Your task to perform on an android device: Go to calendar. Show me events next week Image 0: 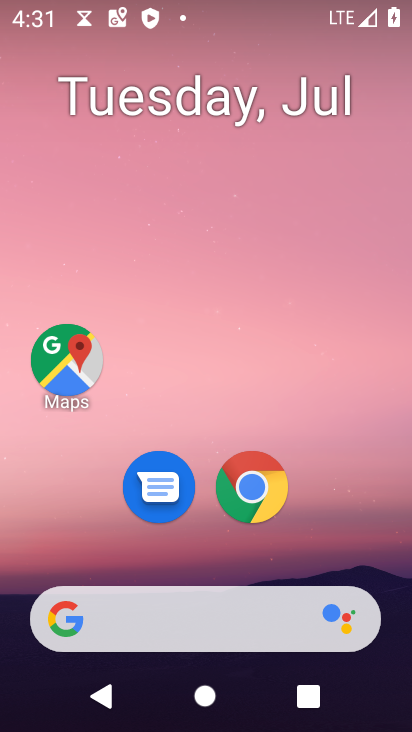
Step 0: drag from (71, 450) to (135, 1)
Your task to perform on an android device: Go to calendar. Show me events next week Image 1: 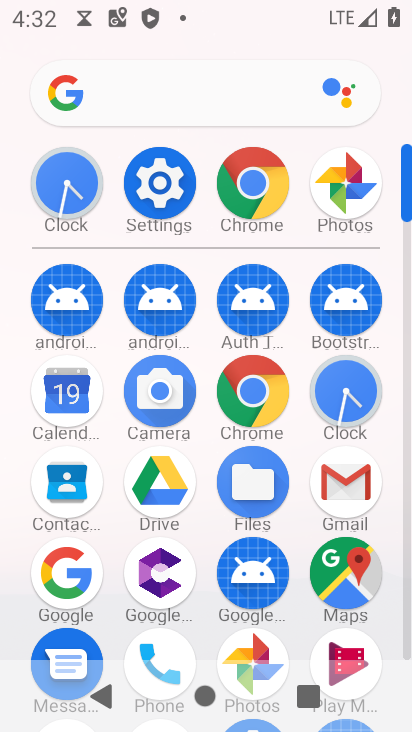
Step 1: click (65, 396)
Your task to perform on an android device: Go to calendar. Show me events next week Image 2: 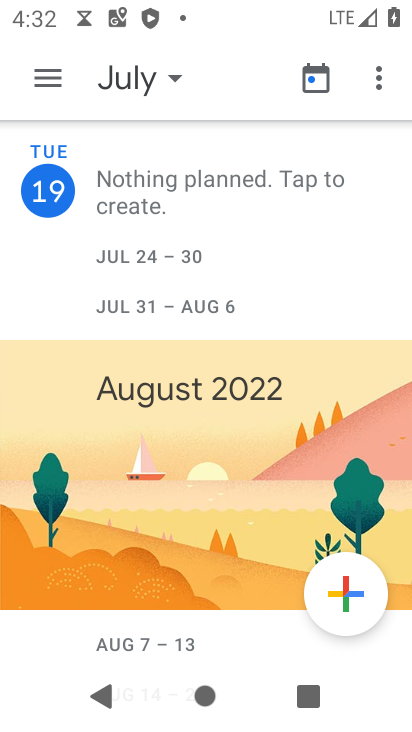
Step 2: click (160, 78)
Your task to perform on an android device: Go to calendar. Show me events next week Image 3: 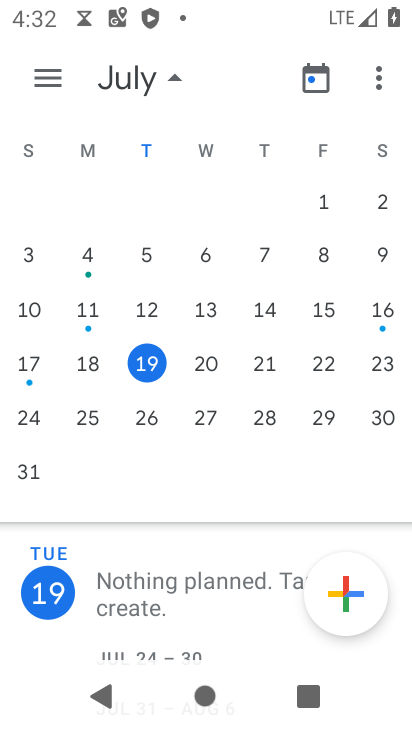
Step 3: click (83, 412)
Your task to perform on an android device: Go to calendar. Show me events next week Image 4: 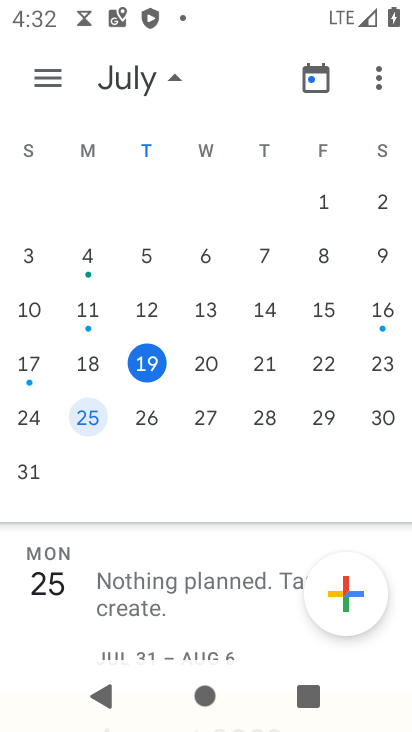
Step 4: task complete